Your task to perform on an android device: Open the calendar and show me this week's events? Image 0: 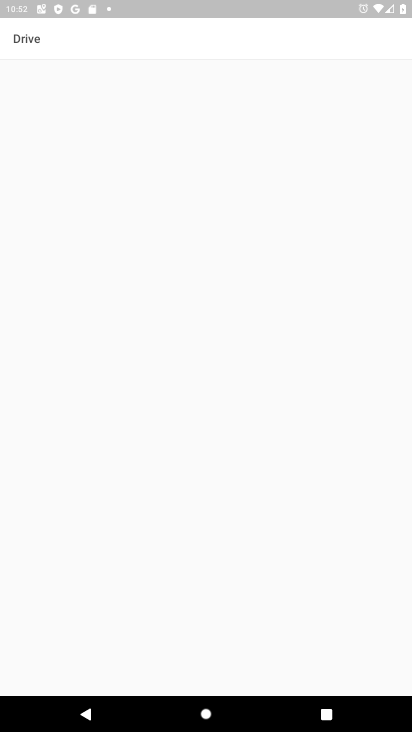
Step 0: press home button
Your task to perform on an android device: Open the calendar and show me this week's events? Image 1: 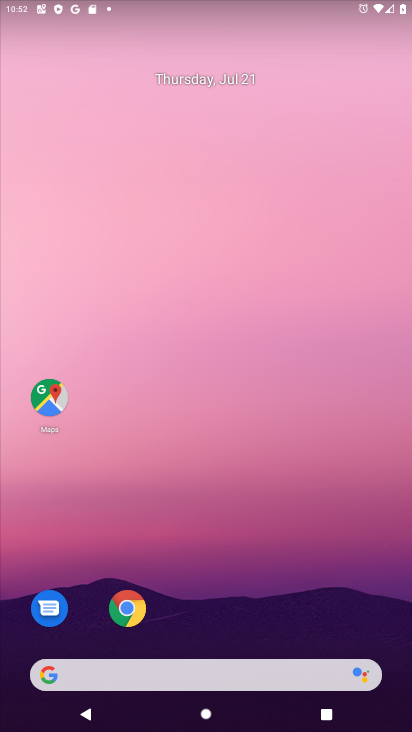
Step 1: drag from (352, 604) to (160, 83)
Your task to perform on an android device: Open the calendar and show me this week's events? Image 2: 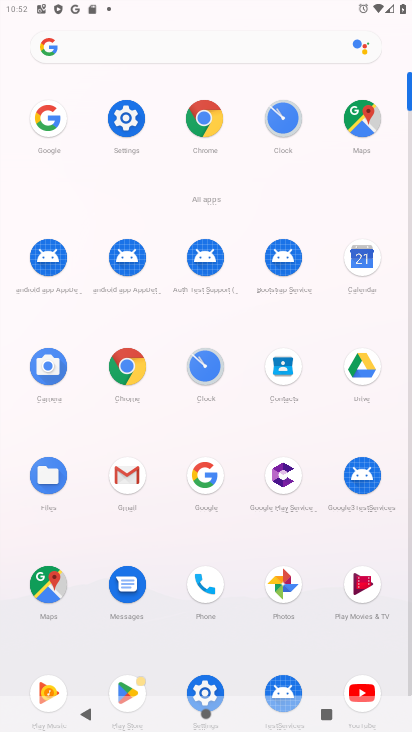
Step 2: click (371, 252)
Your task to perform on an android device: Open the calendar and show me this week's events? Image 3: 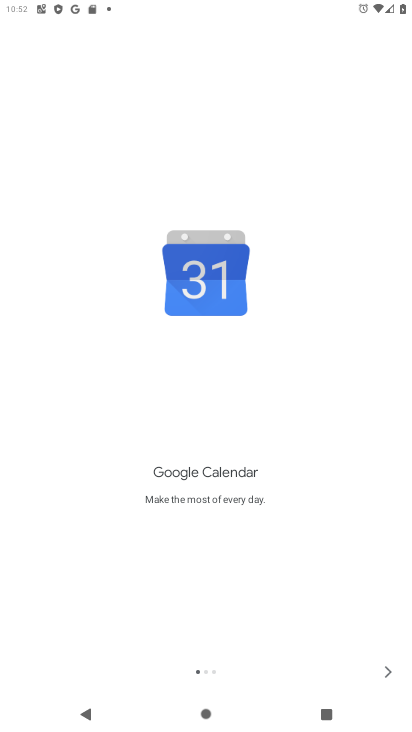
Step 3: click (383, 666)
Your task to perform on an android device: Open the calendar and show me this week's events? Image 4: 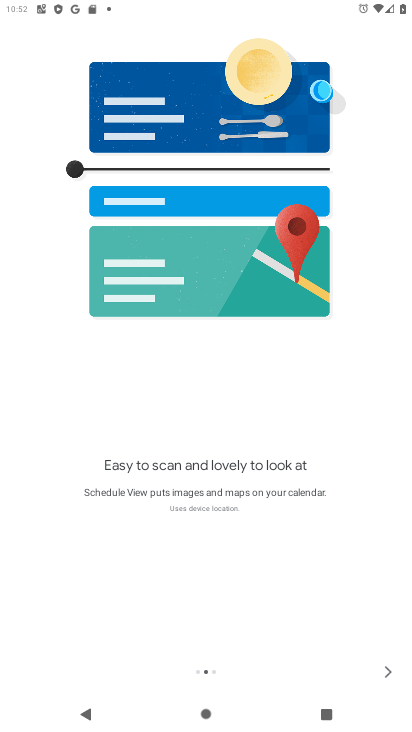
Step 4: click (383, 666)
Your task to perform on an android device: Open the calendar and show me this week's events? Image 5: 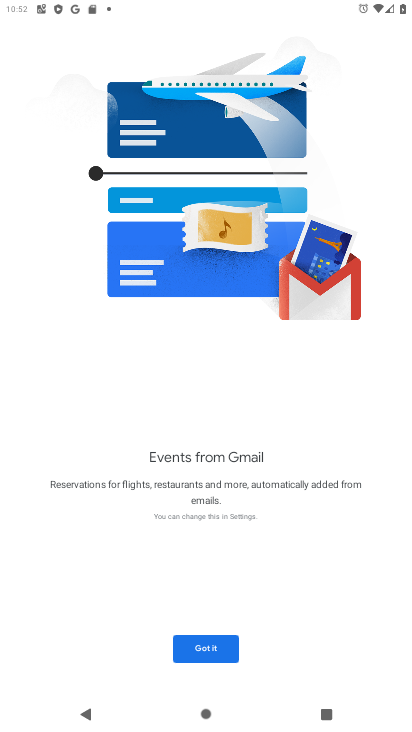
Step 5: click (383, 666)
Your task to perform on an android device: Open the calendar and show me this week's events? Image 6: 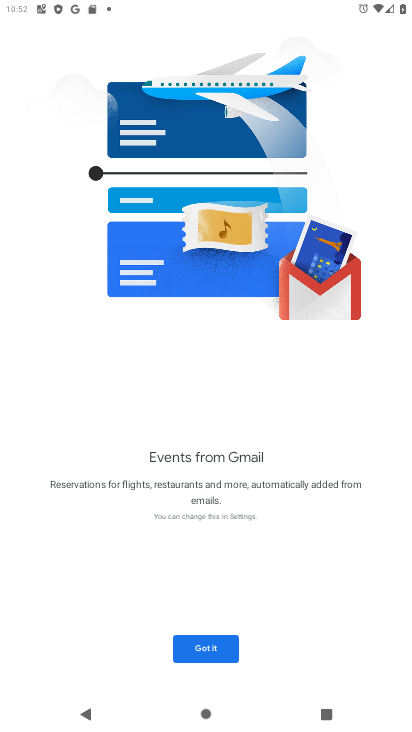
Step 6: click (195, 652)
Your task to perform on an android device: Open the calendar and show me this week's events? Image 7: 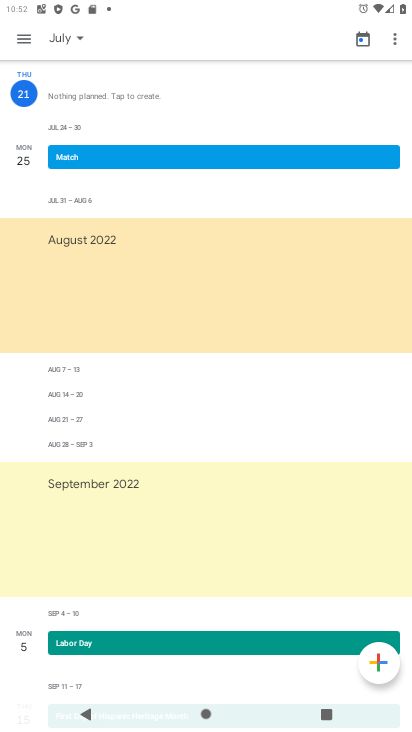
Step 7: task complete